Your task to perform on an android device: View the shopping cart on walmart.com. Search for "bose soundlink mini" on walmart.com, select the first entry, and add it to the cart. Image 0: 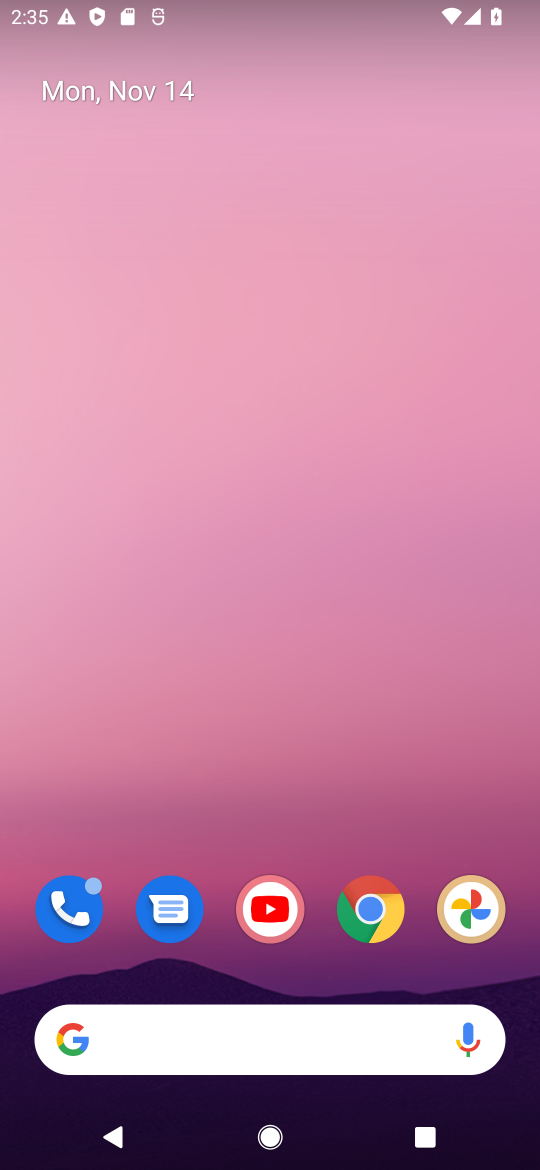
Step 0: drag from (312, 829) to (276, 58)
Your task to perform on an android device: View the shopping cart on walmart.com. Search for "bose soundlink mini" on walmart.com, select the first entry, and add it to the cart. Image 1: 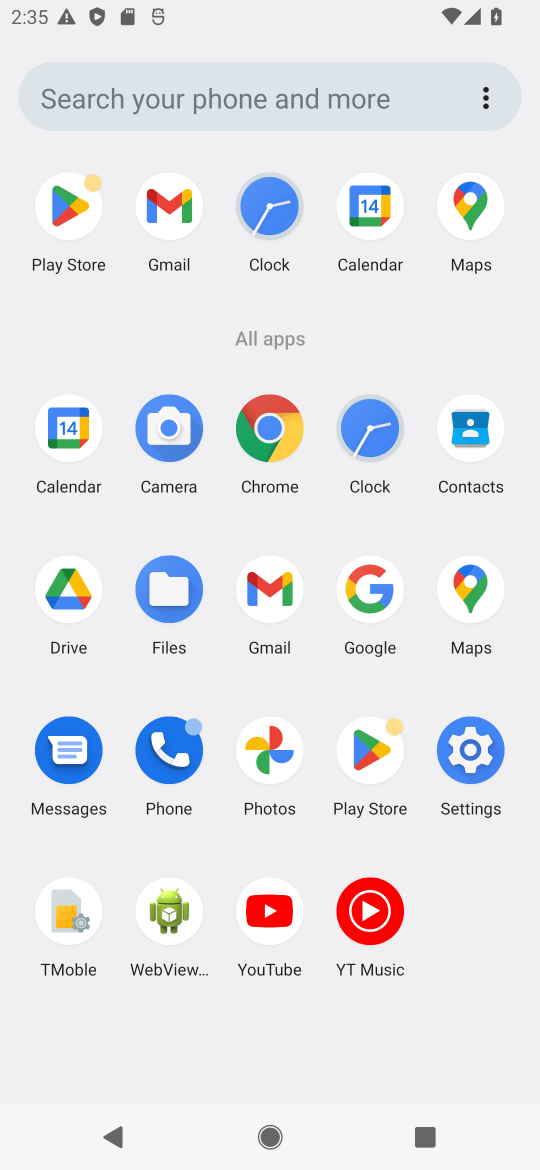
Step 1: click (274, 427)
Your task to perform on an android device: View the shopping cart on walmart.com. Search for "bose soundlink mini" on walmart.com, select the first entry, and add it to the cart. Image 2: 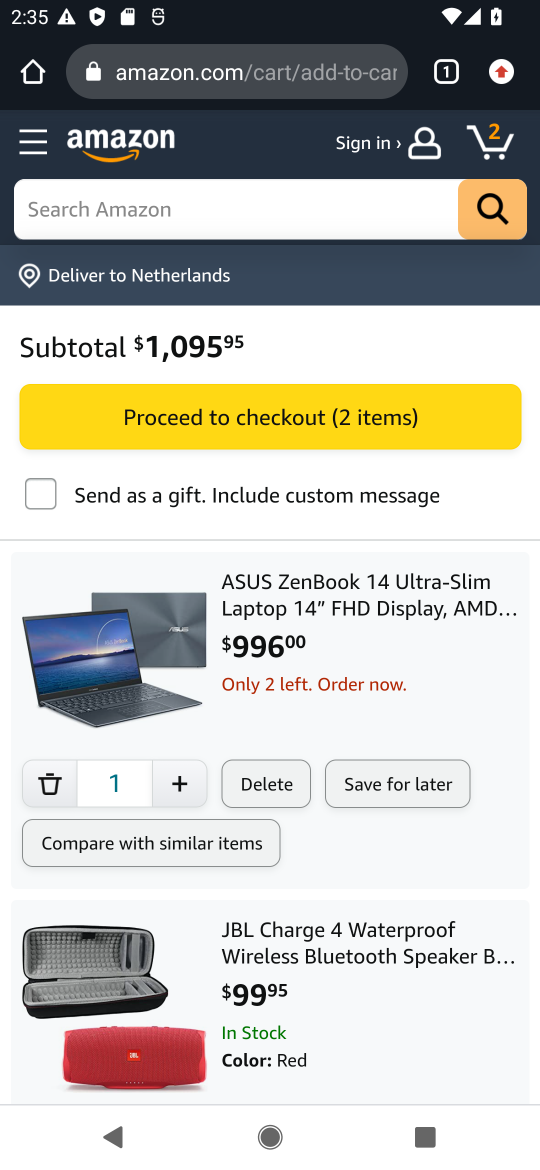
Step 2: click (244, 67)
Your task to perform on an android device: View the shopping cart on walmart.com. Search for "bose soundlink mini" on walmart.com, select the first entry, and add it to the cart. Image 3: 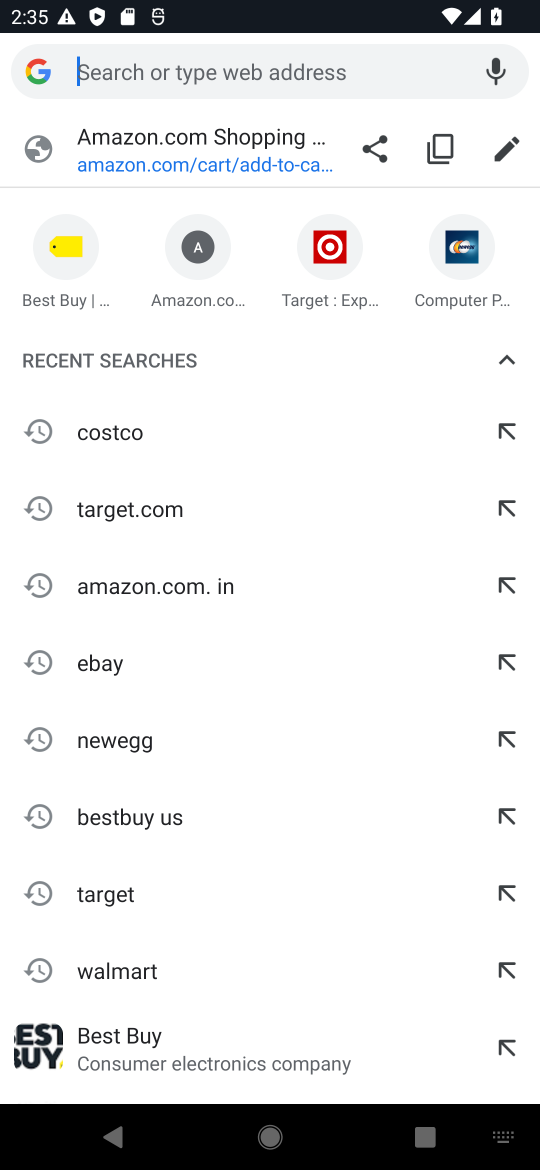
Step 3: type "walmart.com"
Your task to perform on an android device: View the shopping cart on walmart.com. Search for "bose soundlink mini" on walmart.com, select the first entry, and add it to the cart. Image 4: 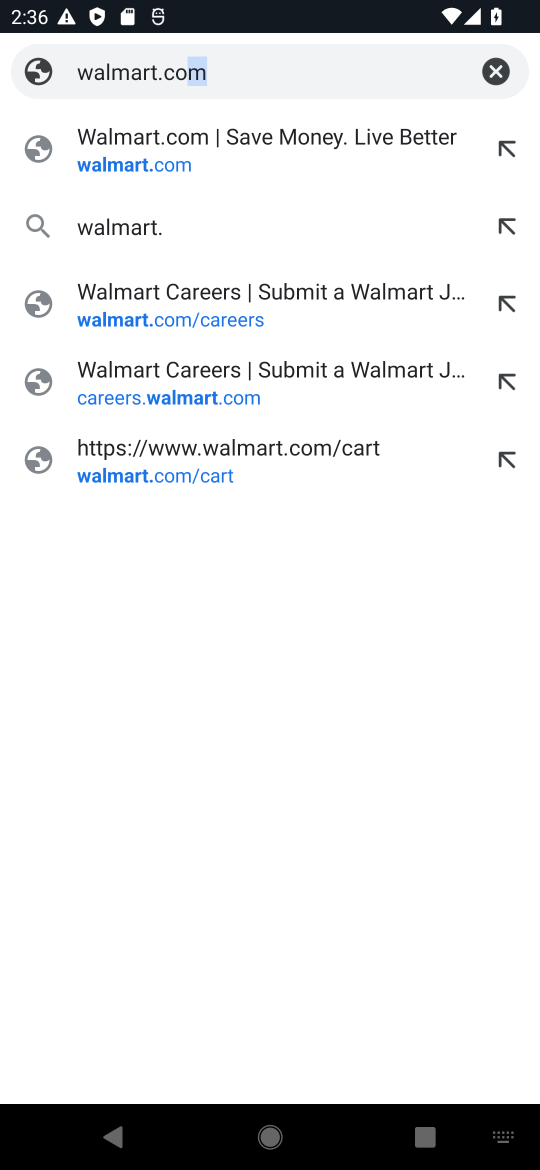
Step 4: press enter
Your task to perform on an android device: View the shopping cart on walmart.com. Search for "bose soundlink mini" on walmart.com, select the first entry, and add it to the cart. Image 5: 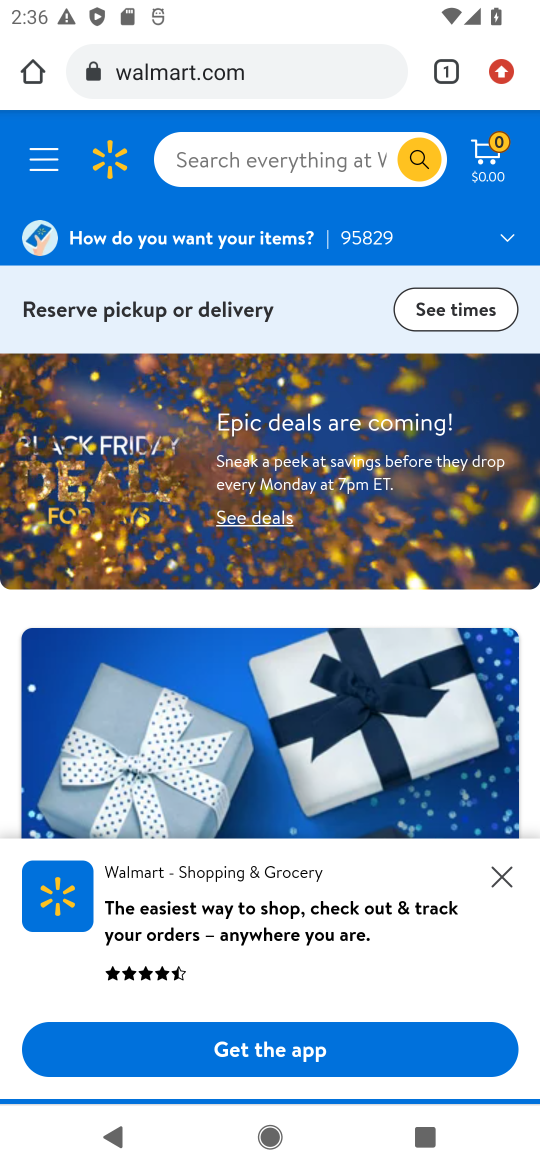
Step 5: click (496, 155)
Your task to perform on an android device: View the shopping cart on walmart.com. Search for "bose soundlink mini" on walmart.com, select the first entry, and add it to the cart. Image 6: 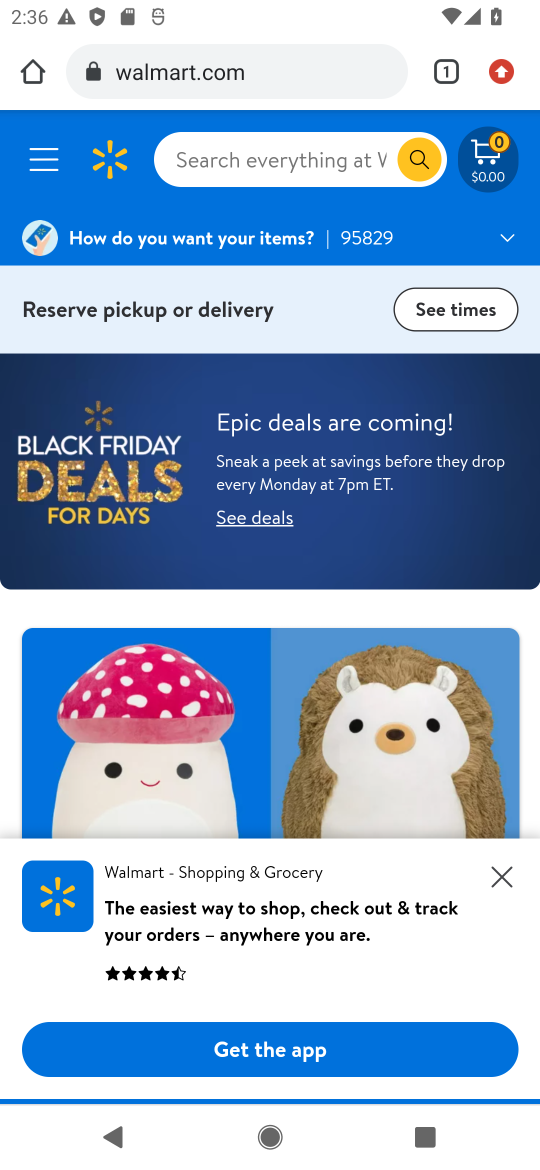
Step 6: click (491, 162)
Your task to perform on an android device: View the shopping cart on walmart.com. Search for "bose soundlink mini" on walmart.com, select the first entry, and add it to the cart. Image 7: 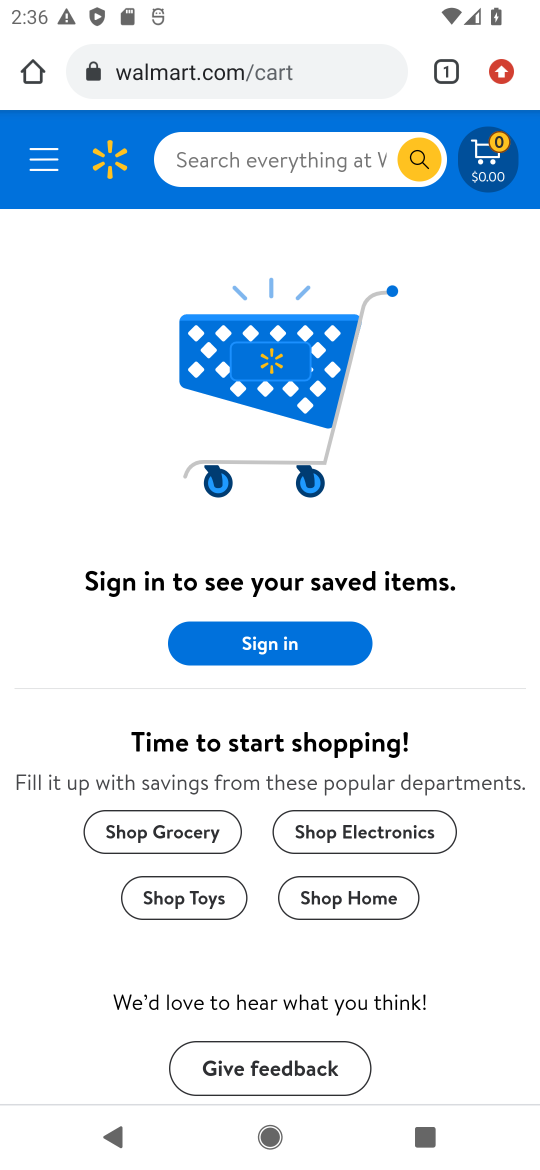
Step 7: click (318, 162)
Your task to perform on an android device: View the shopping cart on walmart.com. Search for "bose soundlink mini" on walmart.com, select the first entry, and add it to the cart. Image 8: 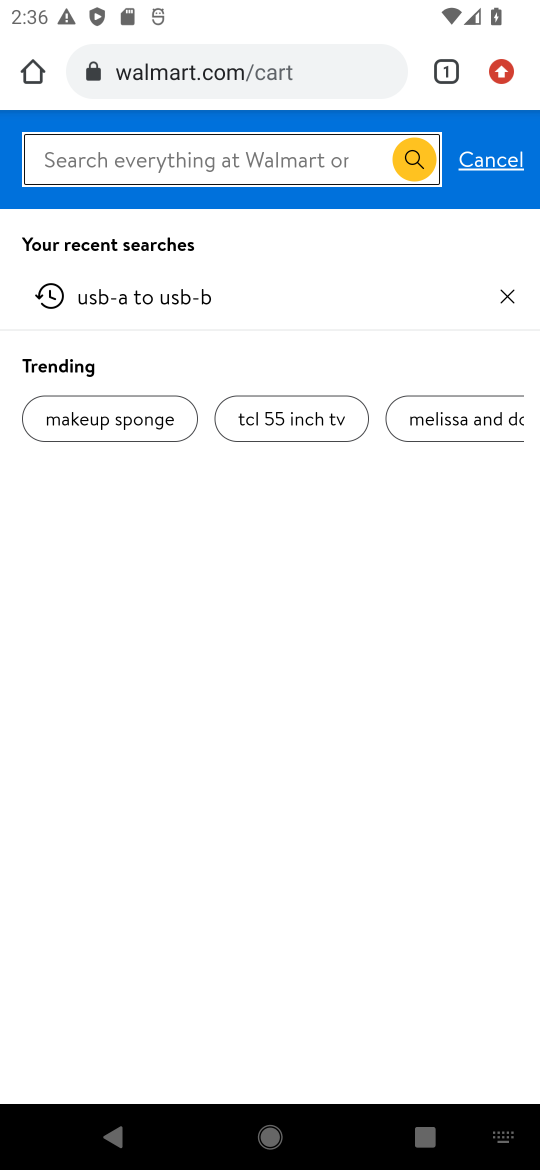
Step 8: type "bose soundlink mini"
Your task to perform on an android device: View the shopping cart on walmart.com. Search for "bose soundlink mini" on walmart.com, select the first entry, and add it to the cart. Image 9: 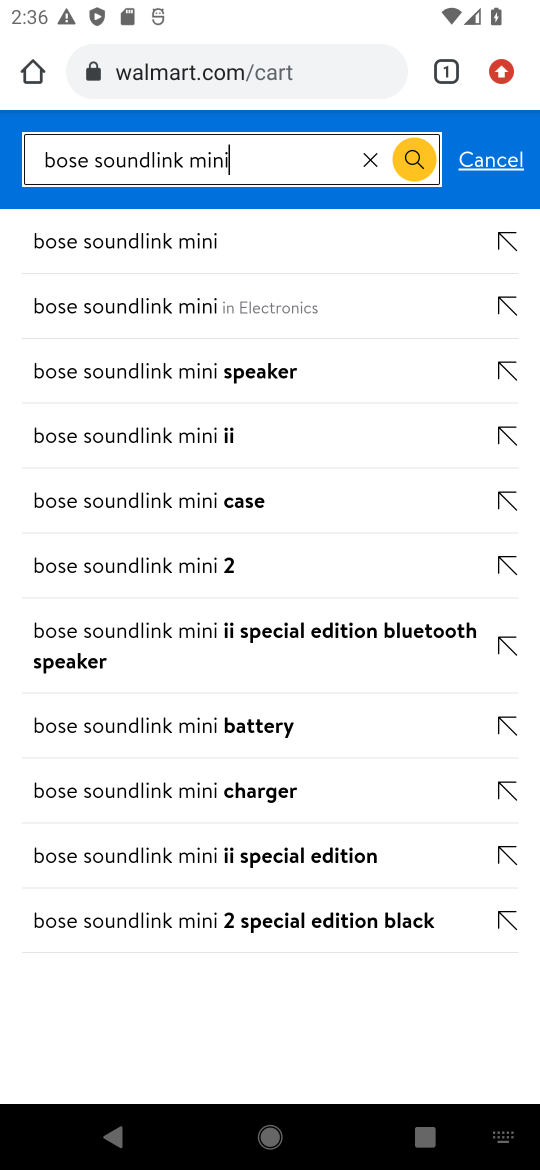
Step 9: press enter
Your task to perform on an android device: View the shopping cart on walmart.com. Search for "bose soundlink mini" on walmart.com, select the first entry, and add it to the cart. Image 10: 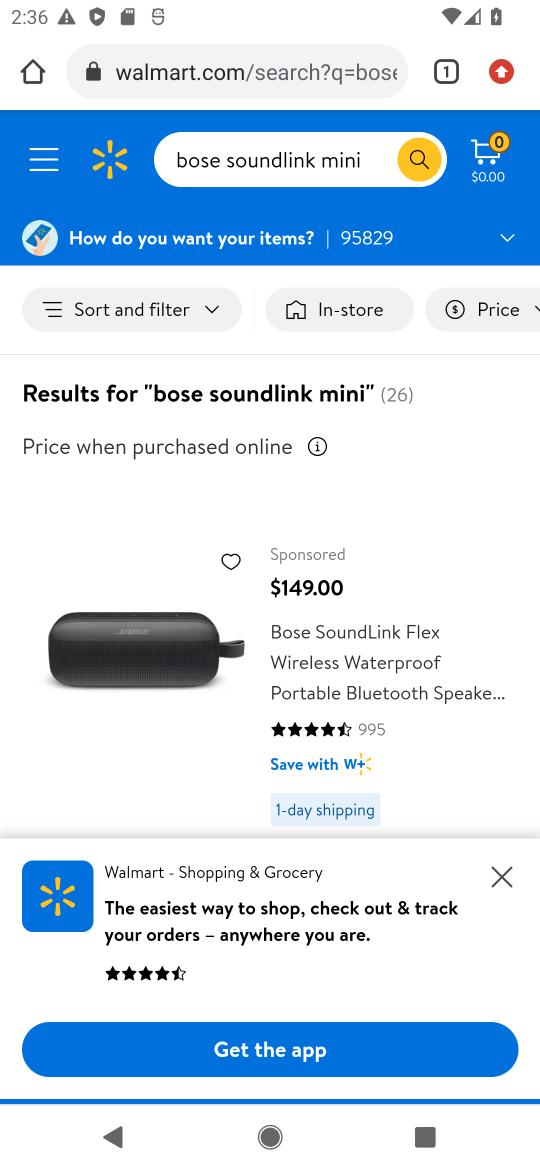
Step 10: drag from (337, 621) to (328, 82)
Your task to perform on an android device: View the shopping cart on walmart.com. Search for "bose soundlink mini" on walmart.com, select the first entry, and add it to the cart. Image 11: 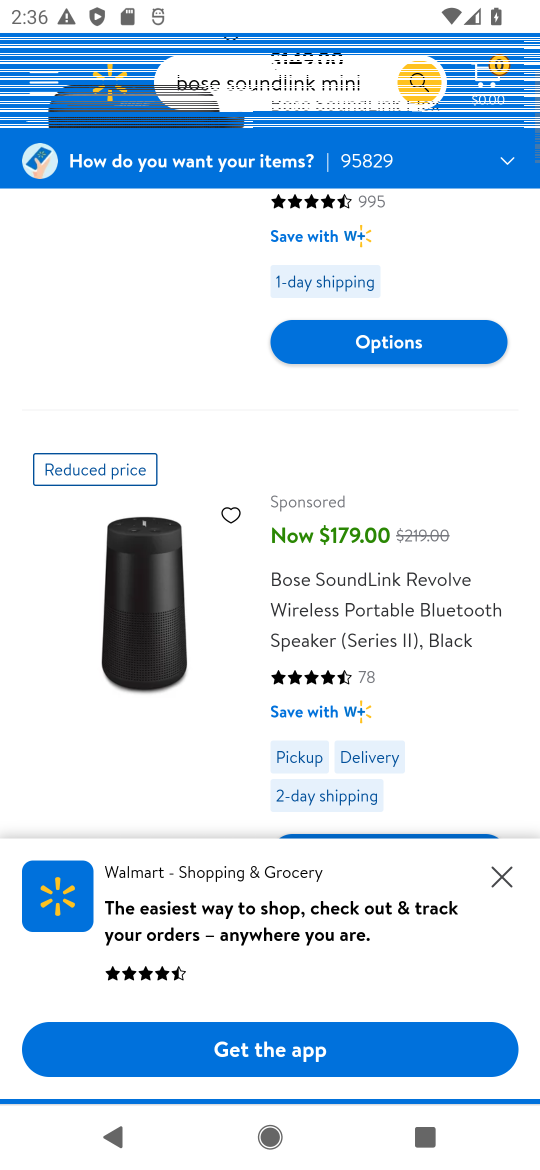
Step 11: drag from (253, 717) to (216, 116)
Your task to perform on an android device: View the shopping cart on walmart.com. Search for "bose soundlink mini" on walmart.com, select the first entry, and add it to the cart. Image 12: 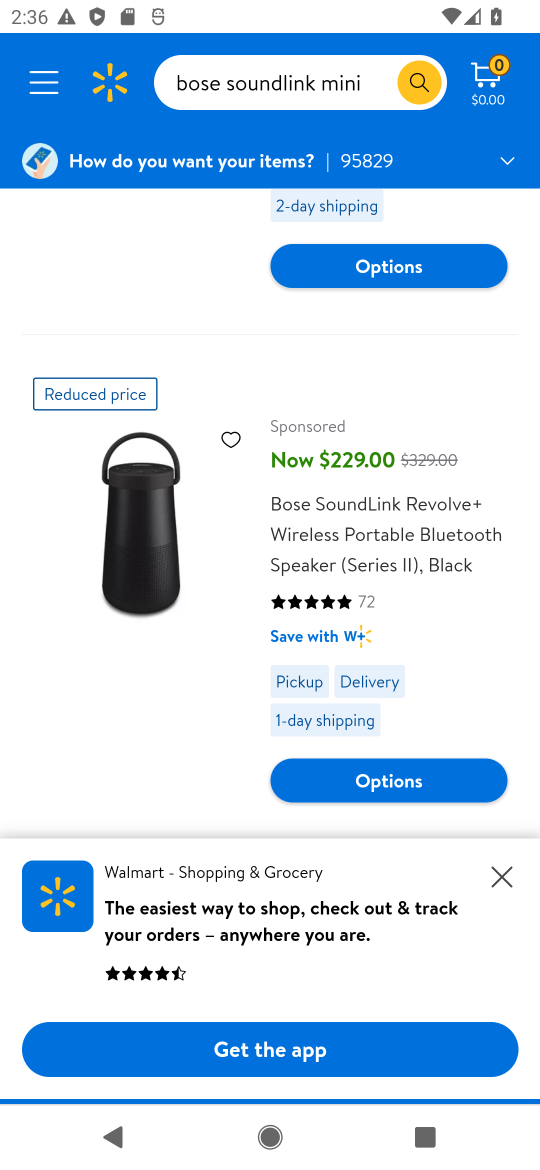
Step 12: drag from (231, 628) to (244, 182)
Your task to perform on an android device: View the shopping cart on walmart.com. Search for "bose soundlink mini" on walmart.com, select the first entry, and add it to the cart. Image 13: 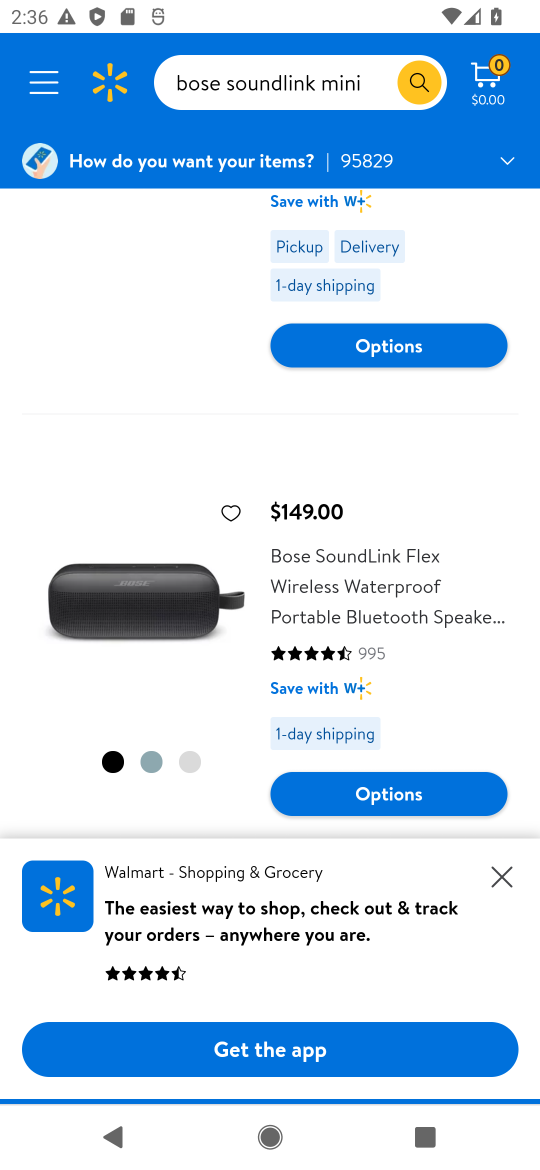
Step 13: drag from (416, 682) to (207, 1145)
Your task to perform on an android device: View the shopping cart on walmart.com. Search for "bose soundlink mini" on walmart.com, select the first entry, and add it to the cart. Image 14: 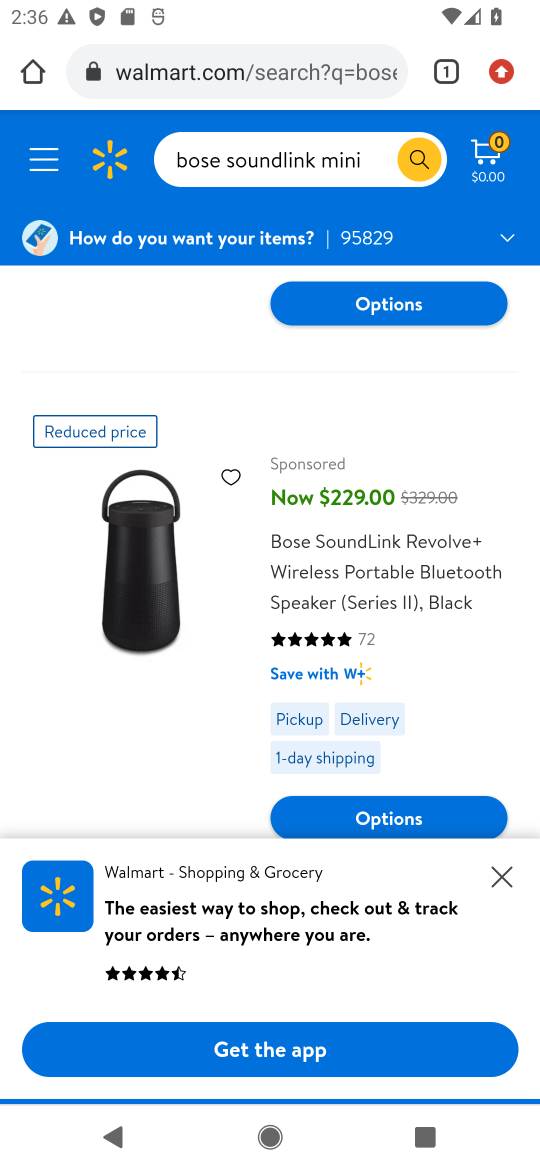
Step 14: drag from (305, 364) to (96, 898)
Your task to perform on an android device: View the shopping cart on walmart.com. Search for "bose soundlink mini" on walmart.com, select the first entry, and add it to the cart. Image 15: 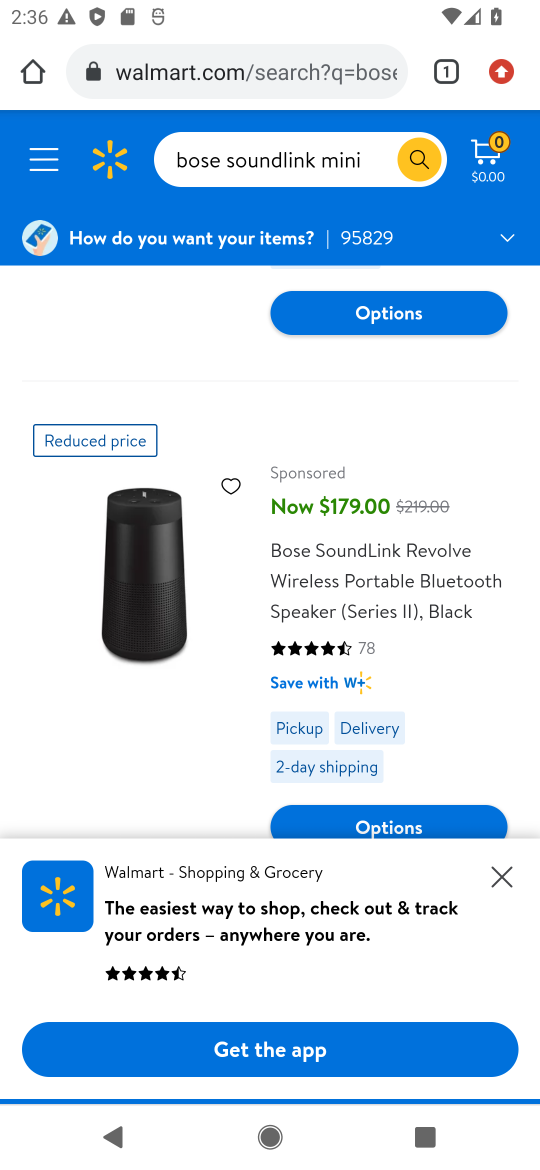
Step 15: drag from (410, 535) to (254, 904)
Your task to perform on an android device: View the shopping cart on walmart.com. Search for "bose soundlink mini" on walmart.com, select the first entry, and add it to the cart. Image 16: 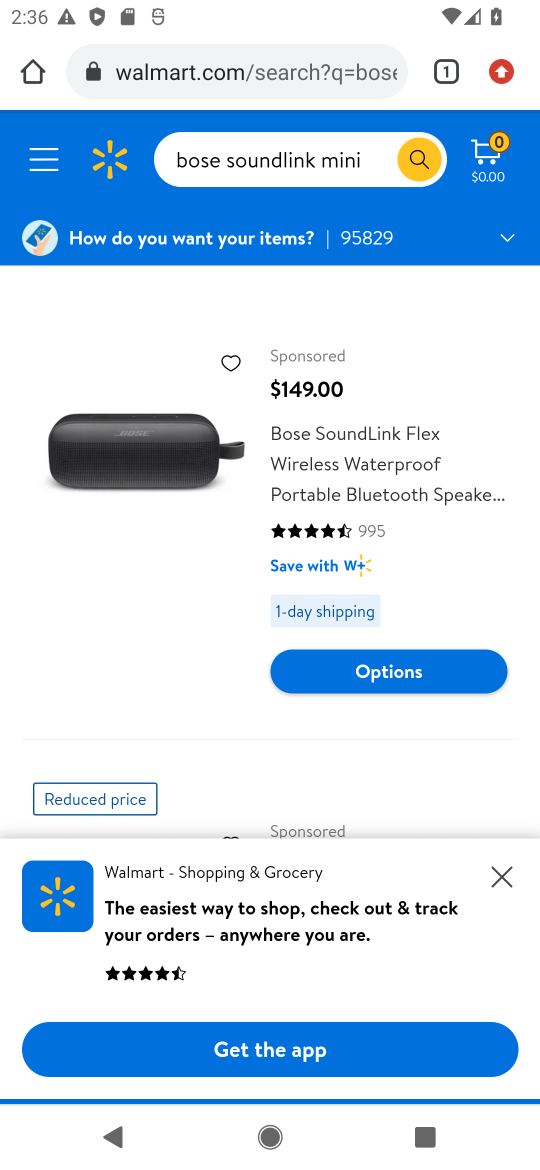
Step 16: drag from (472, 448) to (248, 790)
Your task to perform on an android device: View the shopping cart on walmart.com. Search for "bose soundlink mini" on walmart.com, select the first entry, and add it to the cart. Image 17: 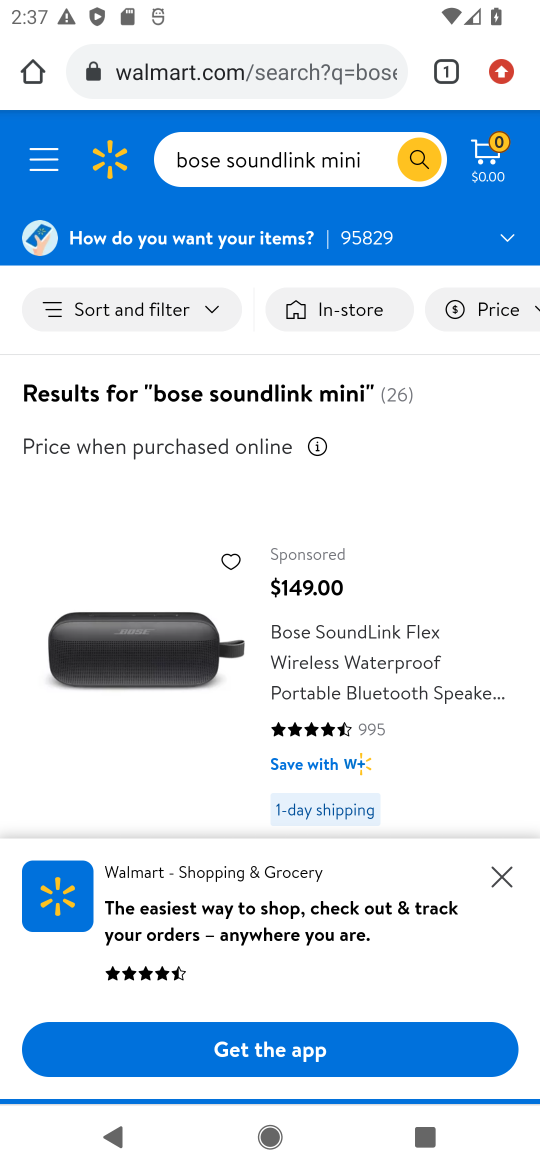
Step 17: click (390, 687)
Your task to perform on an android device: View the shopping cart on walmart.com. Search for "bose soundlink mini" on walmart.com, select the first entry, and add it to the cart. Image 18: 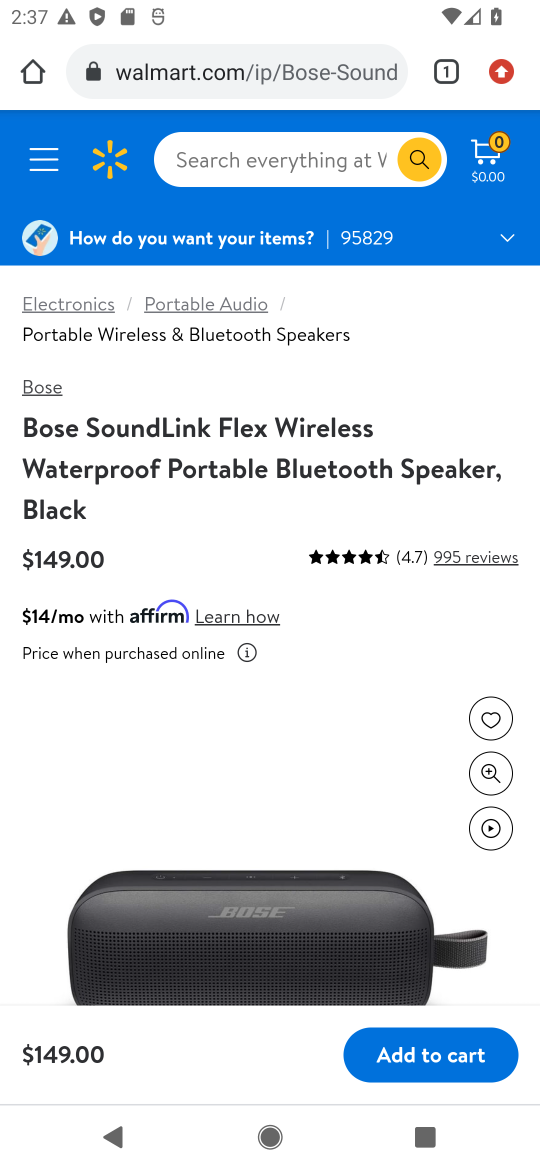
Step 18: click (414, 1048)
Your task to perform on an android device: View the shopping cart on walmart.com. Search for "bose soundlink mini" on walmart.com, select the first entry, and add it to the cart. Image 19: 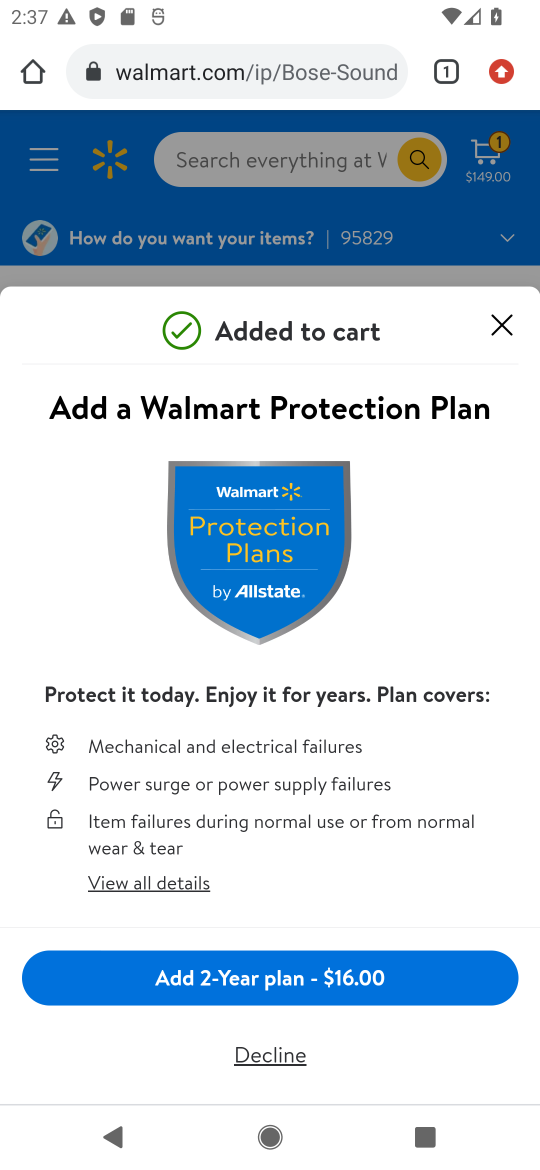
Step 19: task complete